Your task to perform on an android device: Show me recent news Image 0: 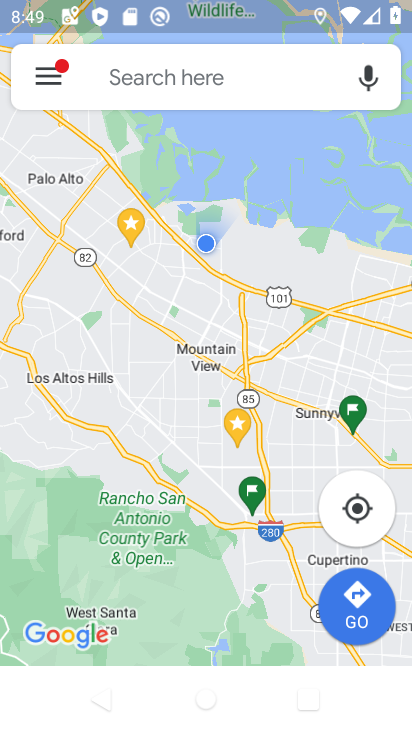
Step 0: press home button
Your task to perform on an android device: Show me recent news Image 1: 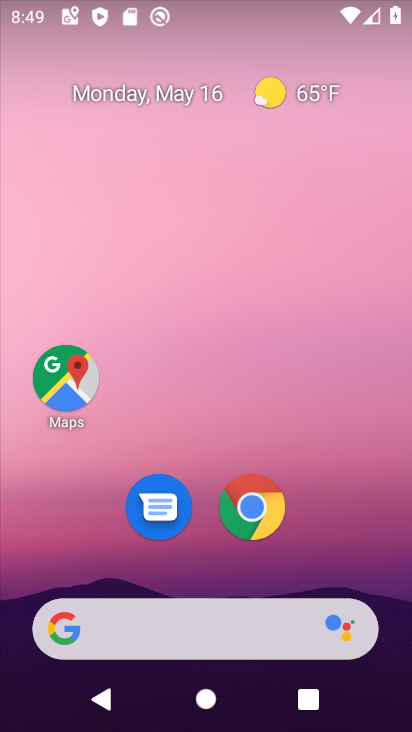
Step 1: click (183, 605)
Your task to perform on an android device: Show me recent news Image 2: 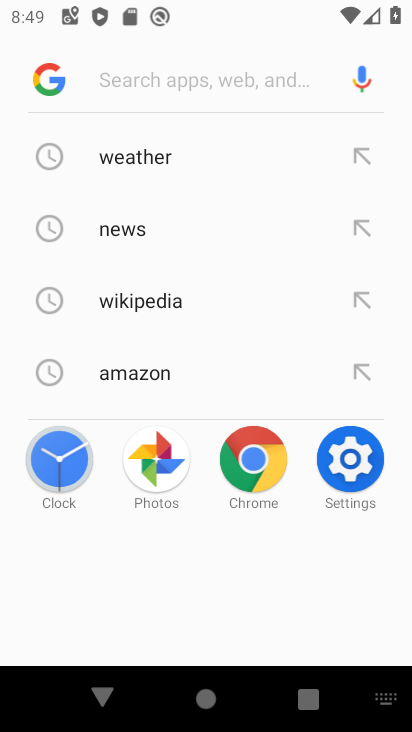
Step 2: click (110, 231)
Your task to perform on an android device: Show me recent news Image 3: 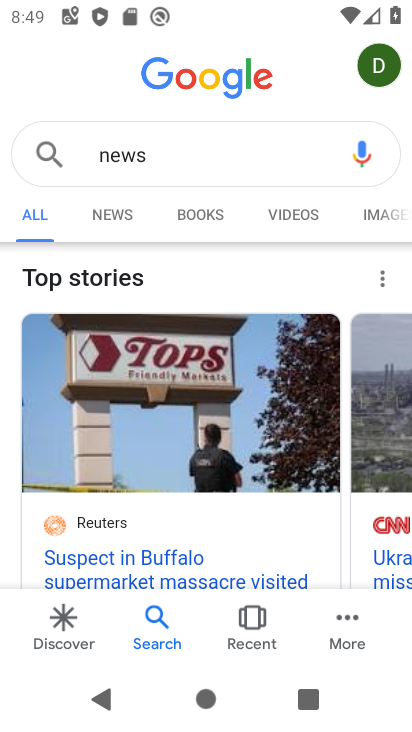
Step 3: task complete